Your task to perform on an android device: turn on priority inbox in the gmail app Image 0: 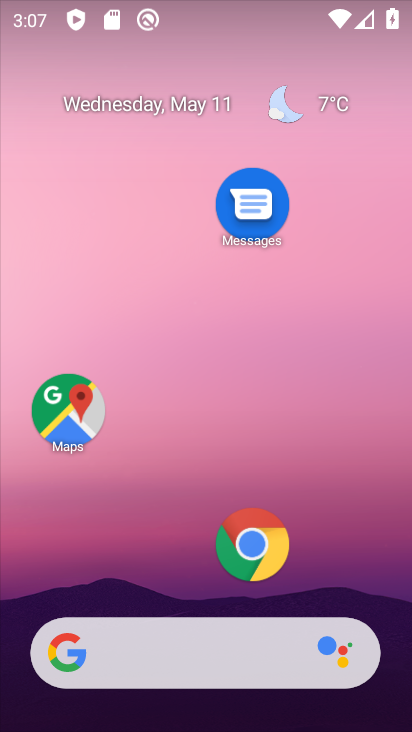
Step 0: drag from (160, 580) to (247, 8)
Your task to perform on an android device: turn on priority inbox in the gmail app Image 1: 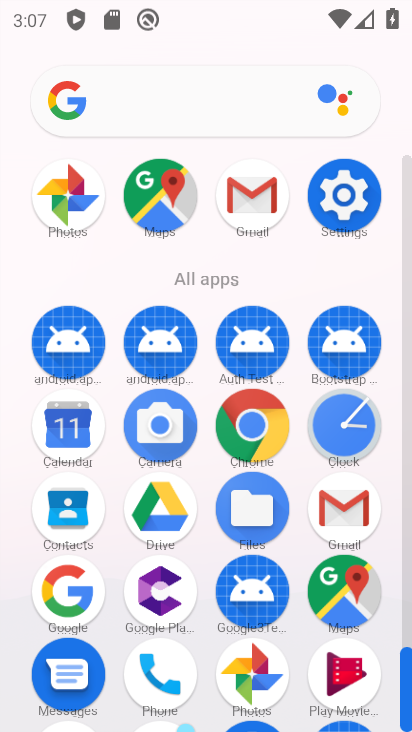
Step 1: click (251, 183)
Your task to perform on an android device: turn on priority inbox in the gmail app Image 2: 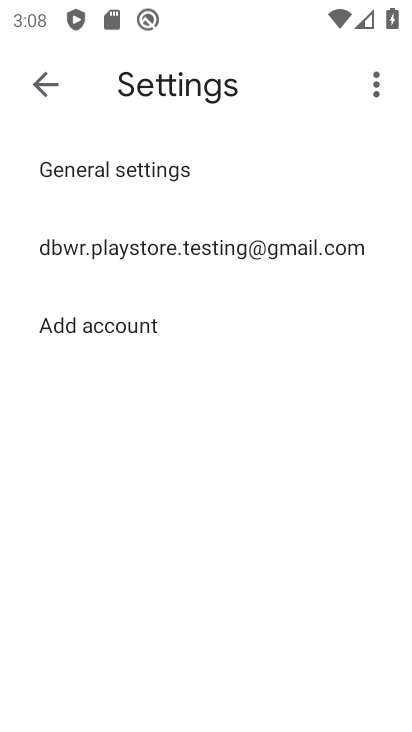
Step 2: click (125, 256)
Your task to perform on an android device: turn on priority inbox in the gmail app Image 3: 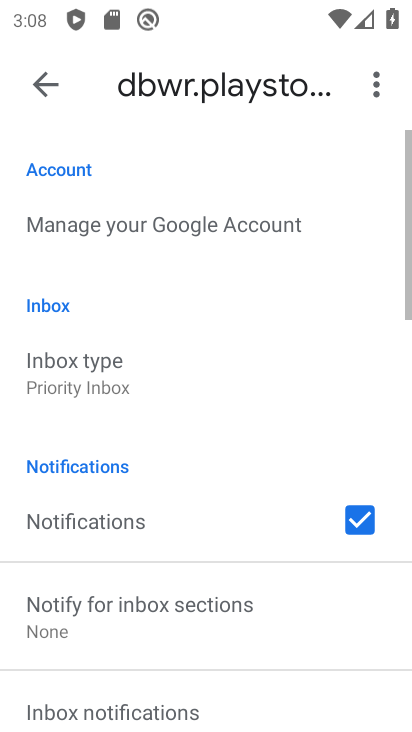
Step 3: click (80, 380)
Your task to perform on an android device: turn on priority inbox in the gmail app Image 4: 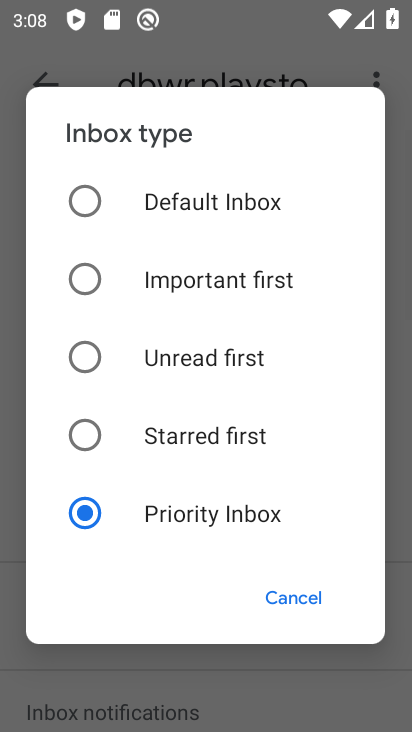
Step 4: task complete